Your task to perform on an android device: stop showing notifications on the lock screen Image 0: 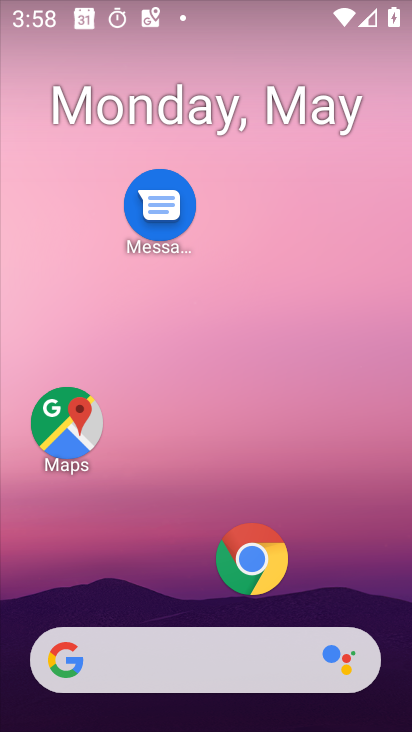
Step 0: drag from (161, 516) to (208, 188)
Your task to perform on an android device: stop showing notifications on the lock screen Image 1: 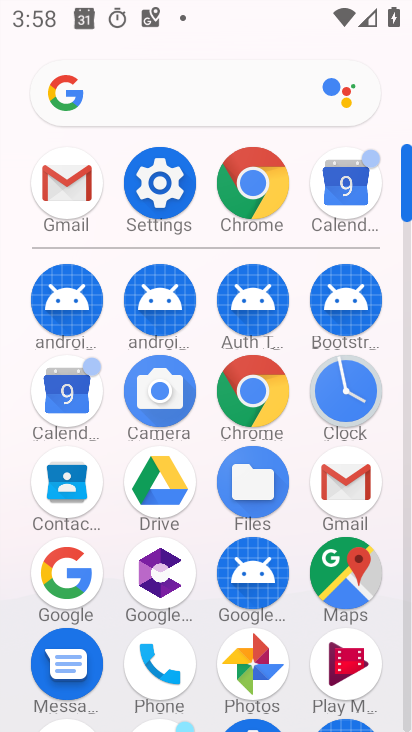
Step 1: click (159, 178)
Your task to perform on an android device: stop showing notifications on the lock screen Image 2: 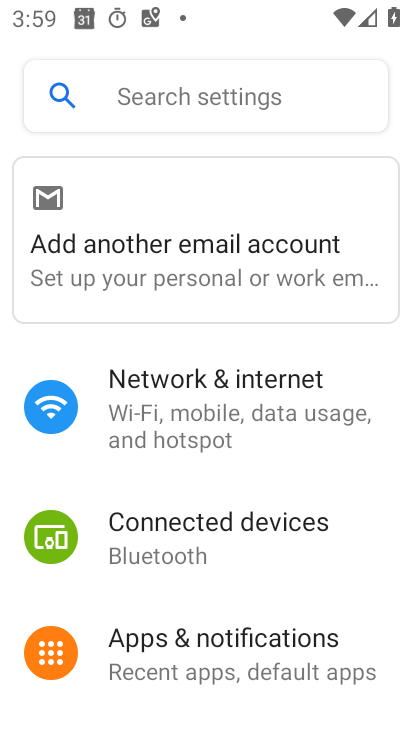
Step 2: click (228, 642)
Your task to perform on an android device: stop showing notifications on the lock screen Image 3: 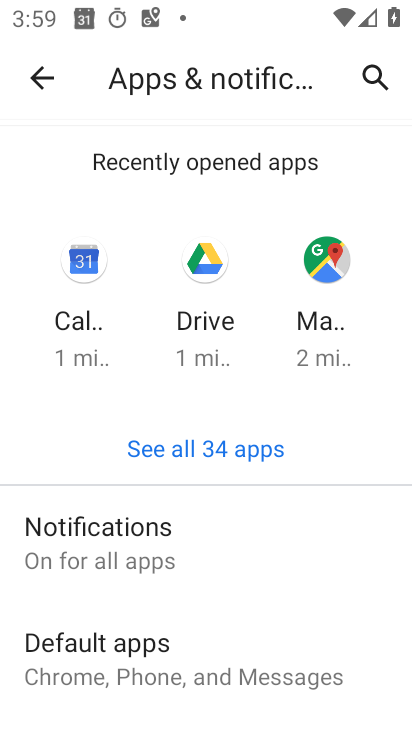
Step 3: click (153, 550)
Your task to perform on an android device: stop showing notifications on the lock screen Image 4: 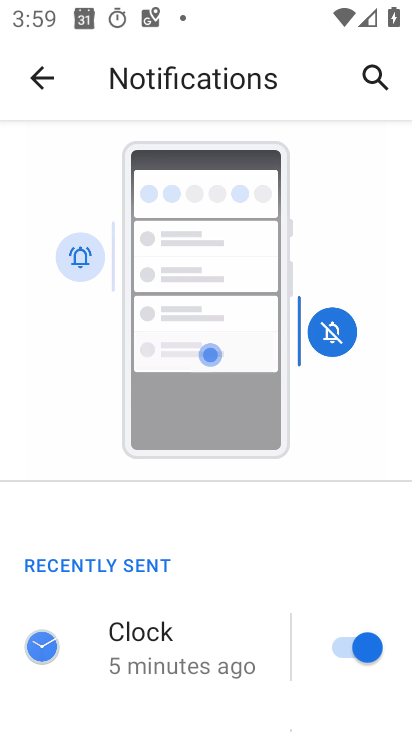
Step 4: drag from (201, 659) to (248, 279)
Your task to perform on an android device: stop showing notifications on the lock screen Image 5: 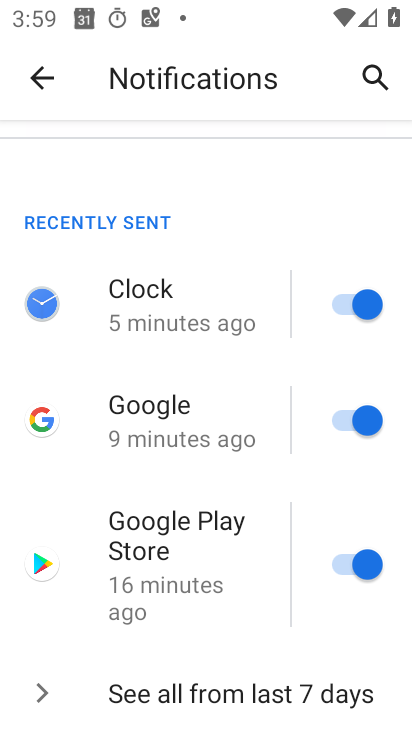
Step 5: drag from (212, 663) to (250, 280)
Your task to perform on an android device: stop showing notifications on the lock screen Image 6: 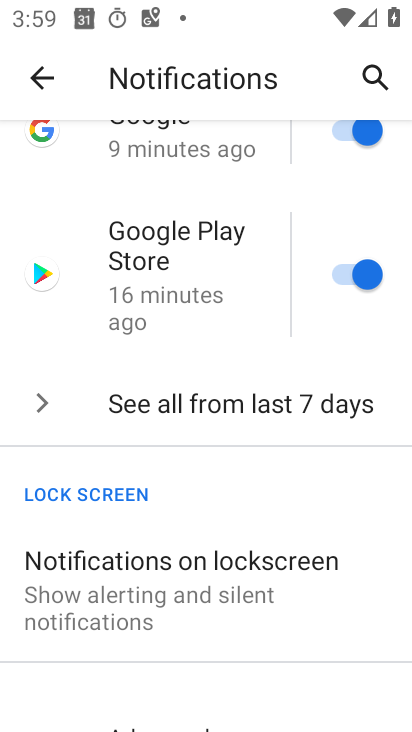
Step 6: click (151, 607)
Your task to perform on an android device: stop showing notifications on the lock screen Image 7: 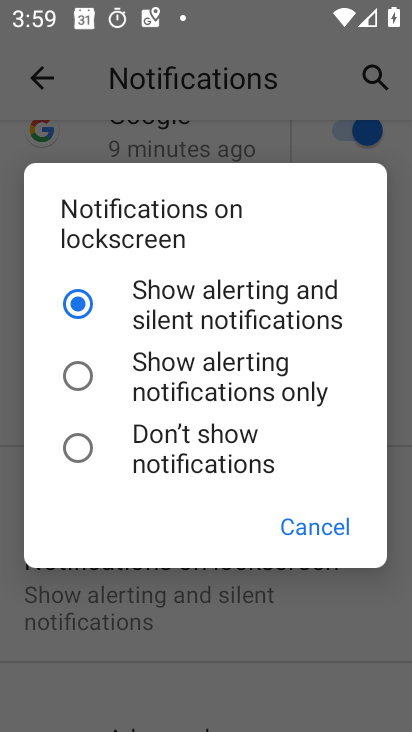
Step 7: click (162, 441)
Your task to perform on an android device: stop showing notifications on the lock screen Image 8: 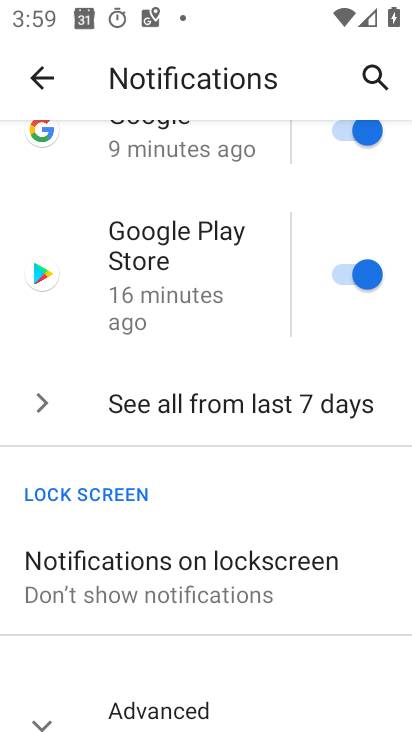
Step 8: task complete